Your task to perform on an android device: Open calendar and show me the third week of next month Image 0: 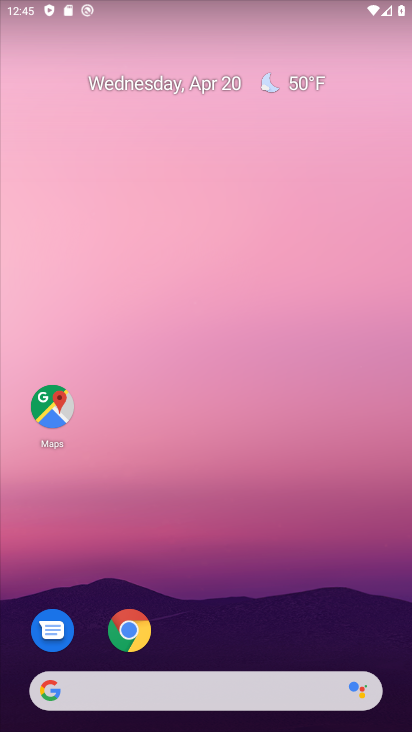
Step 0: drag from (232, 607) to (223, 233)
Your task to perform on an android device: Open calendar and show me the third week of next month Image 1: 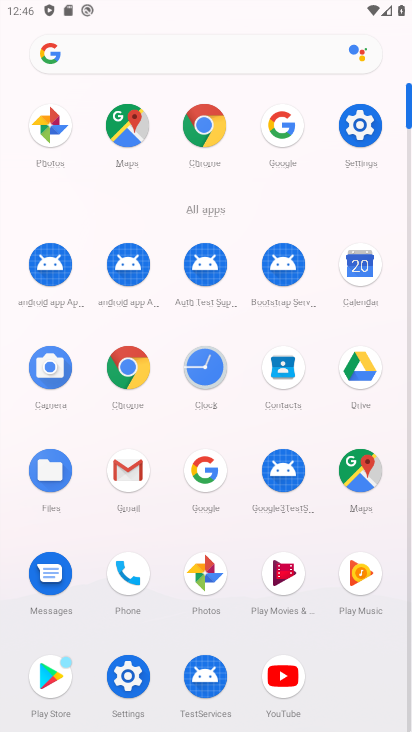
Step 1: click (354, 267)
Your task to perform on an android device: Open calendar and show me the third week of next month Image 2: 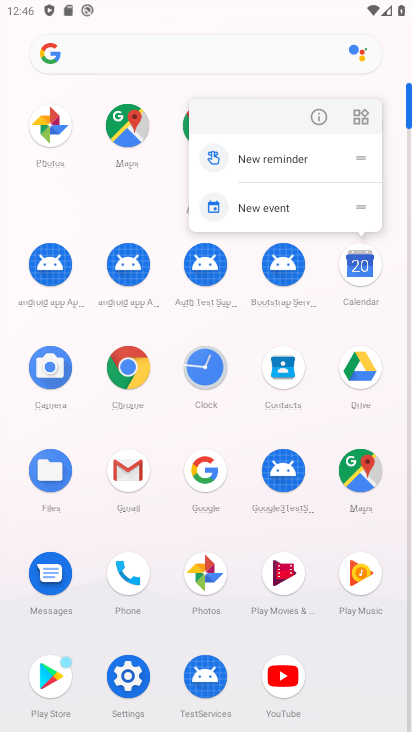
Step 2: click (359, 266)
Your task to perform on an android device: Open calendar and show me the third week of next month Image 3: 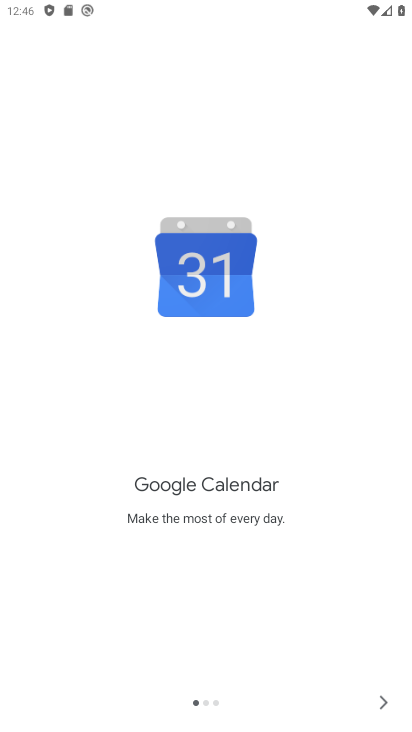
Step 3: click (381, 707)
Your task to perform on an android device: Open calendar and show me the third week of next month Image 4: 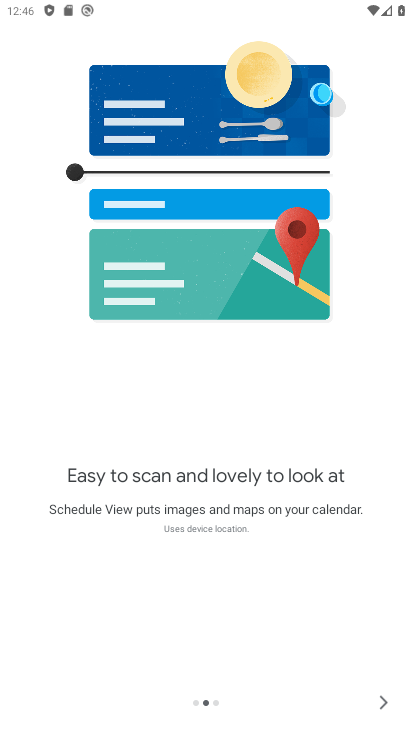
Step 4: click (381, 707)
Your task to perform on an android device: Open calendar and show me the third week of next month Image 5: 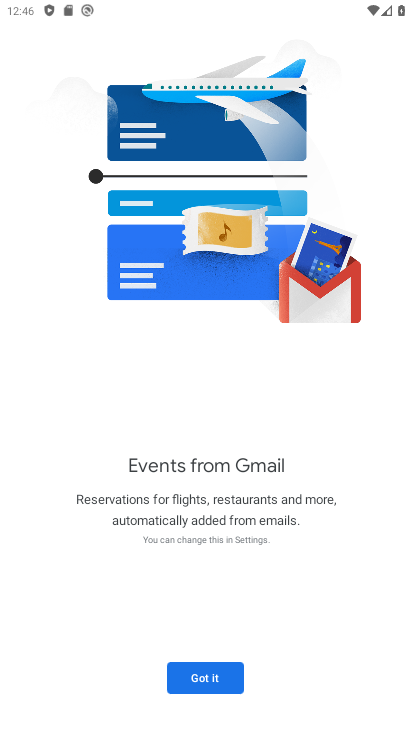
Step 5: click (196, 681)
Your task to perform on an android device: Open calendar and show me the third week of next month Image 6: 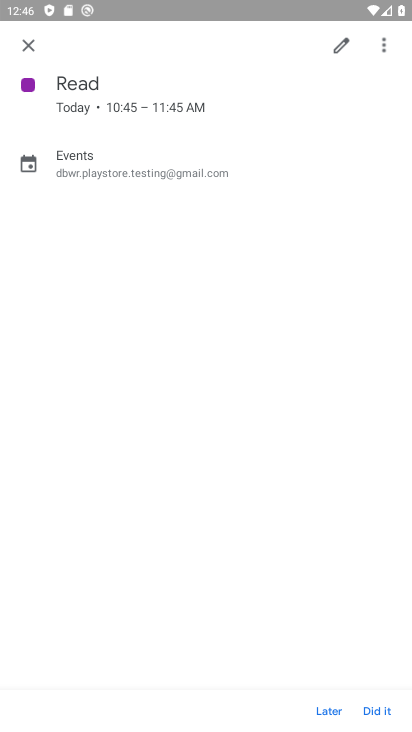
Step 6: click (338, 707)
Your task to perform on an android device: Open calendar and show me the third week of next month Image 7: 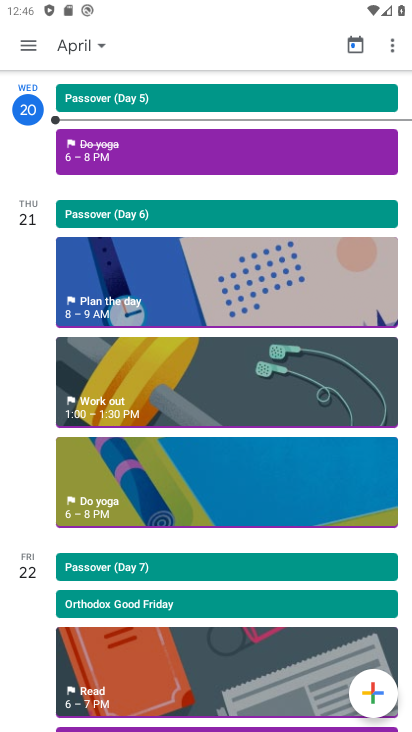
Step 7: click (97, 48)
Your task to perform on an android device: Open calendar and show me the third week of next month Image 8: 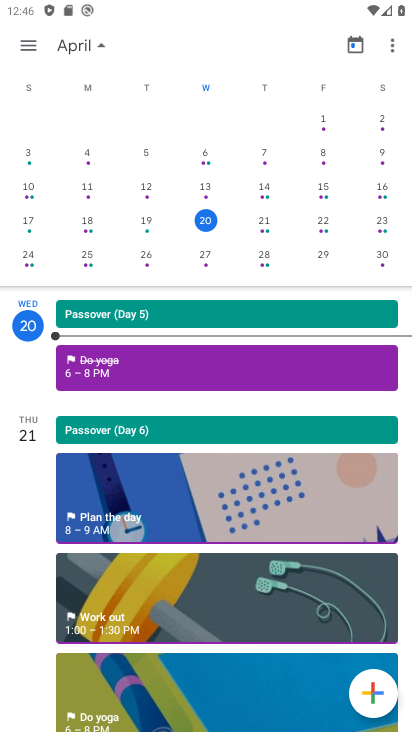
Step 8: drag from (392, 275) to (0, 260)
Your task to perform on an android device: Open calendar and show me the third week of next month Image 9: 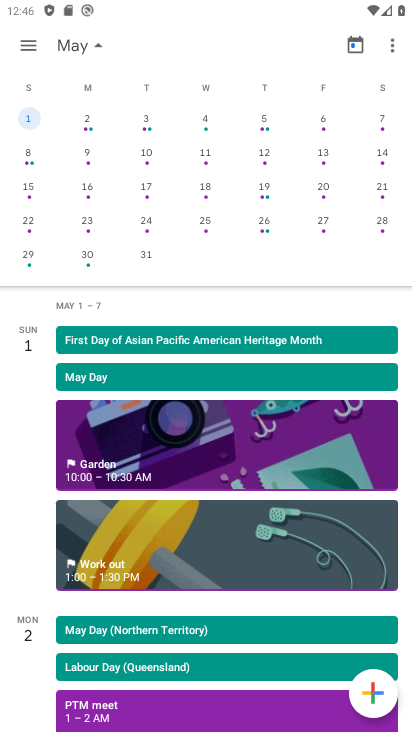
Step 9: click (147, 185)
Your task to perform on an android device: Open calendar and show me the third week of next month Image 10: 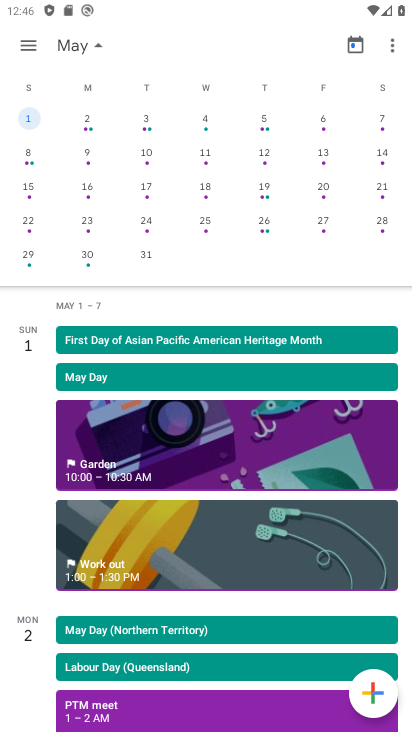
Step 10: click (147, 185)
Your task to perform on an android device: Open calendar and show me the third week of next month Image 11: 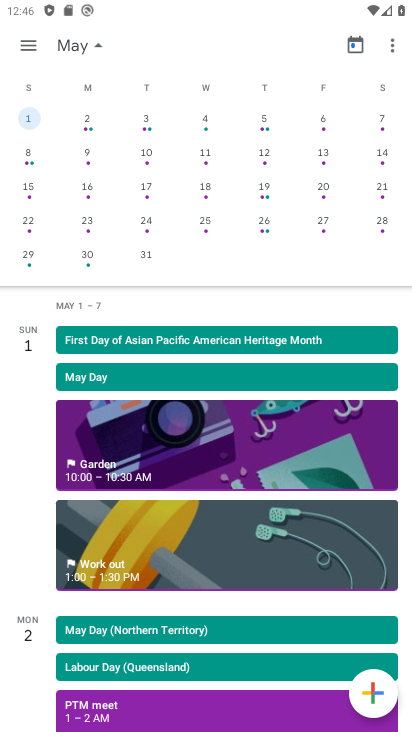
Step 11: click (143, 184)
Your task to perform on an android device: Open calendar and show me the third week of next month Image 12: 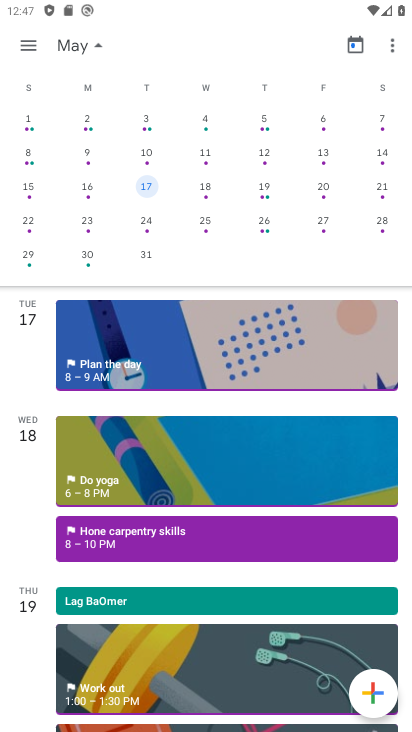
Step 12: task complete